Your task to perform on an android device: Open maps Image 0: 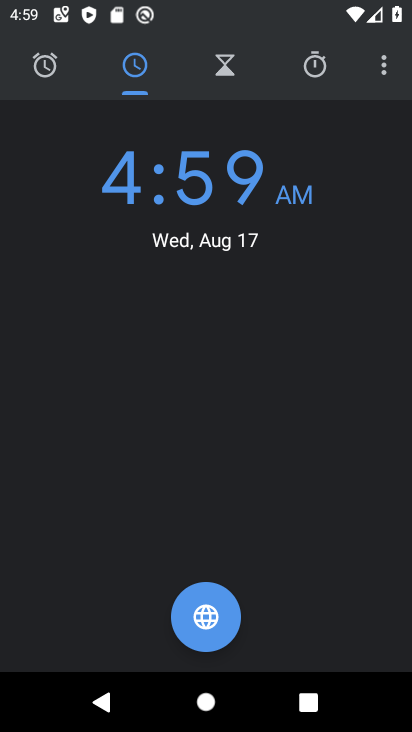
Step 0: press home button
Your task to perform on an android device: Open maps Image 1: 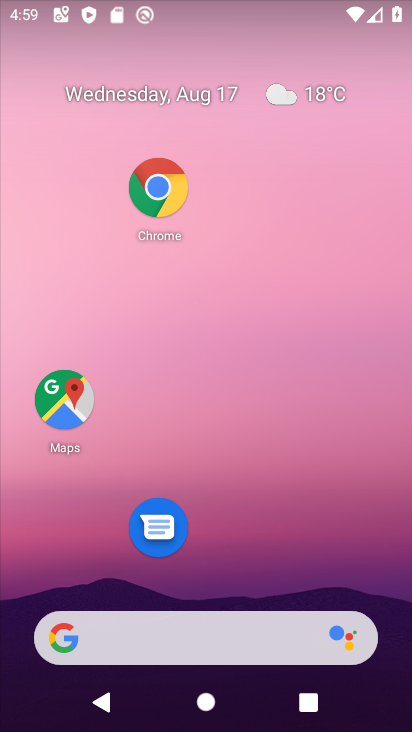
Step 1: click (71, 418)
Your task to perform on an android device: Open maps Image 2: 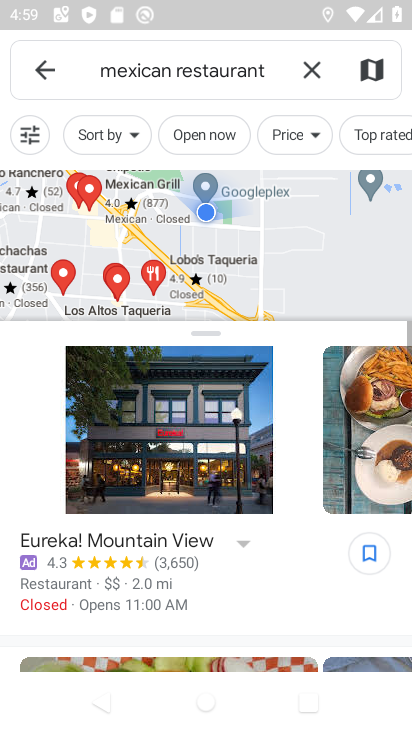
Step 2: task complete